Your task to perform on an android device: Open the phone app and click the voicemail tab. Image 0: 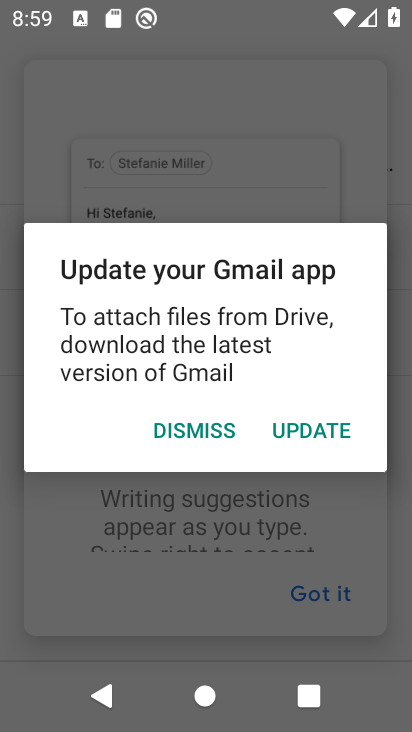
Step 0: press home button
Your task to perform on an android device: Open the phone app and click the voicemail tab. Image 1: 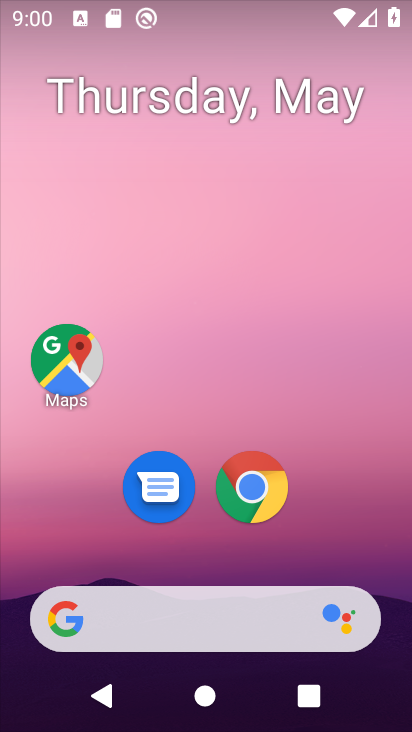
Step 1: drag from (317, 568) to (246, 13)
Your task to perform on an android device: Open the phone app and click the voicemail tab. Image 2: 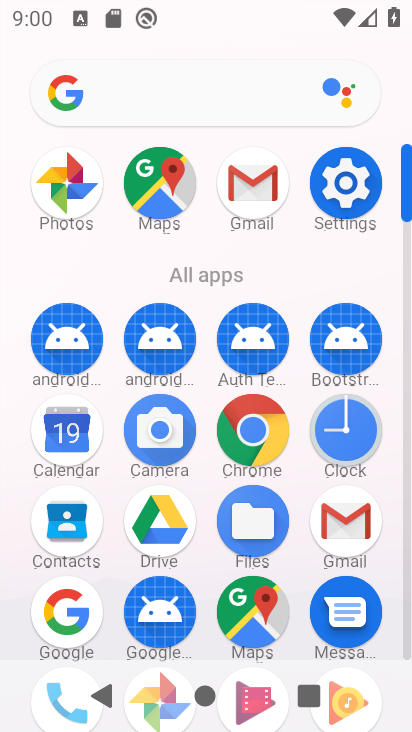
Step 2: drag from (317, 585) to (299, 37)
Your task to perform on an android device: Open the phone app and click the voicemail tab. Image 3: 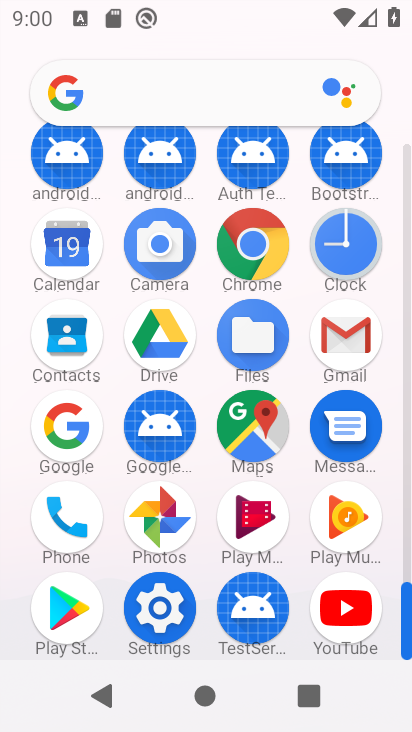
Step 3: click (85, 524)
Your task to perform on an android device: Open the phone app and click the voicemail tab. Image 4: 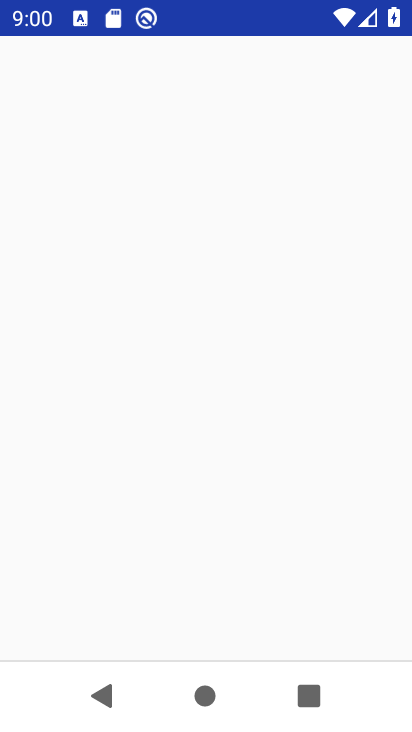
Step 4: click (85, 524)
Your task to perform on an android device: Open the phone app and click the voicemail tab. Image 5: 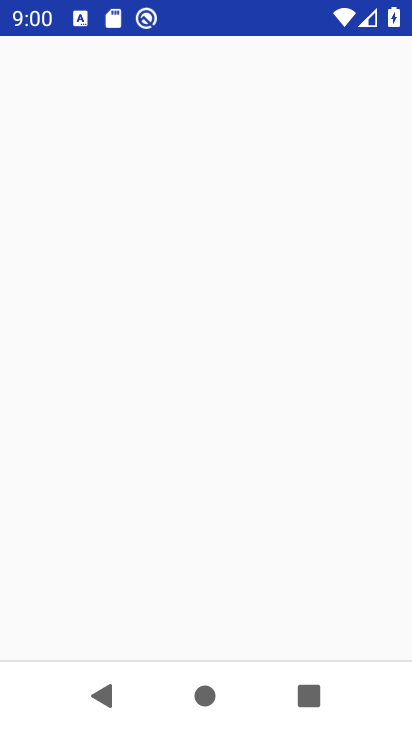
Step 5: click (85, 524)
Your task to perform on an android device: Open the phone app and click the voicemail tab. Image 6: 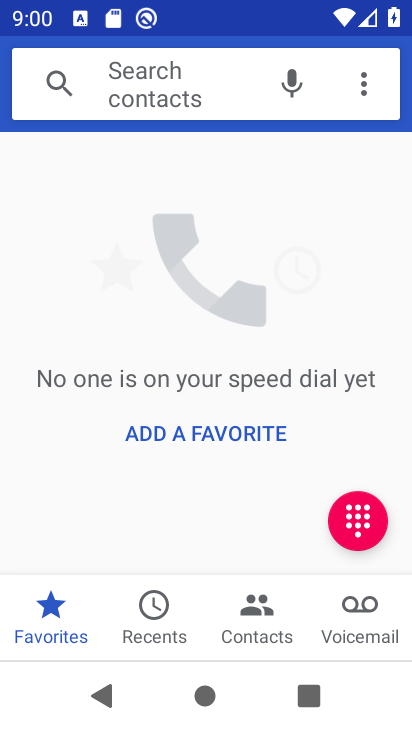
Step 6: click (353, 617)
Your task to perform on an android device: Open the phone app and click the voicemail tab. Image 7: 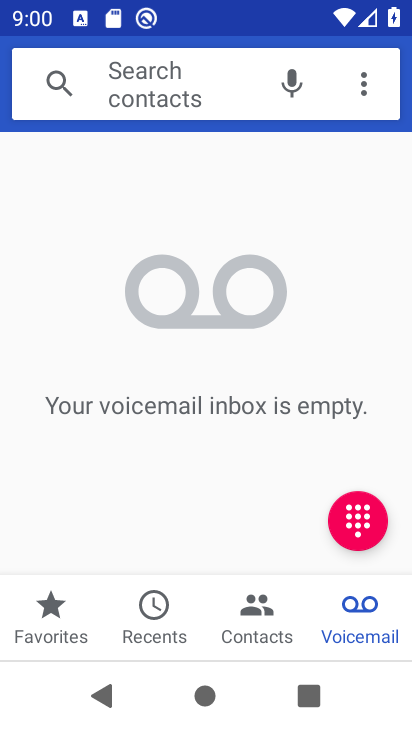
Step 7: click (353, 617)
Your task to perform on an android device: Open the phone app and click the voicemail tab. Image 8: 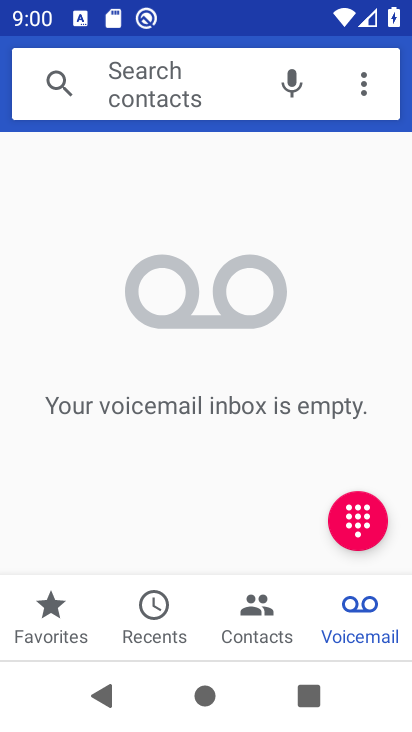
Step 8: task complete